Your task to perform on an android device: turn off translation in the chrome app Image 0: 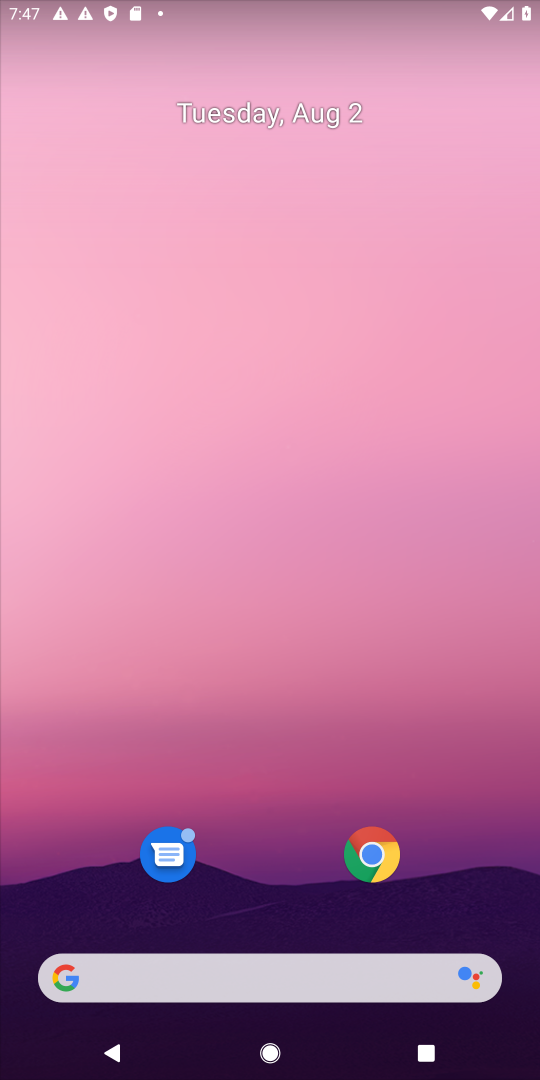
Step 0: drag from (282, 893) to (346, 66)
Your task to perform on an android device: turn off translation in the chrome app Image 1: 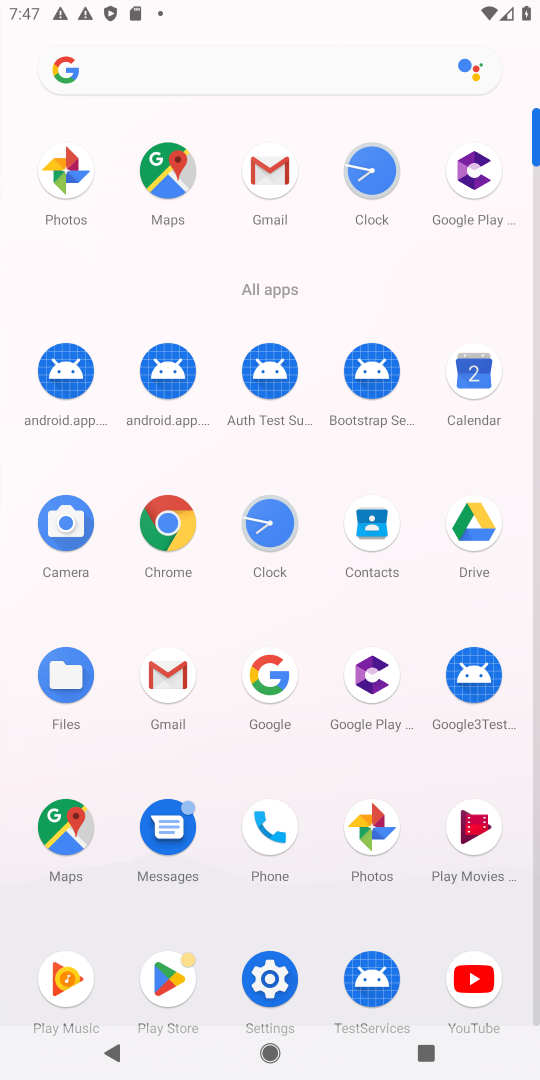
Step 1: click (160, 523)
Your task to perform on an android device: turn off translation in the chrome app Image 2: 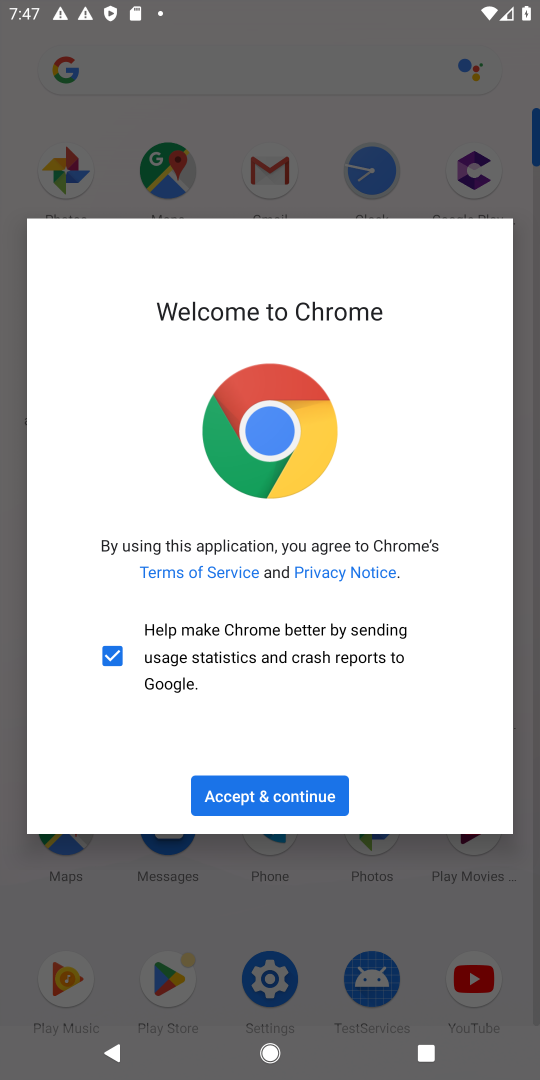
Step 2: click (301, 802)
Your task to perform on an android device: turn off translation in the chrome app Image 3: 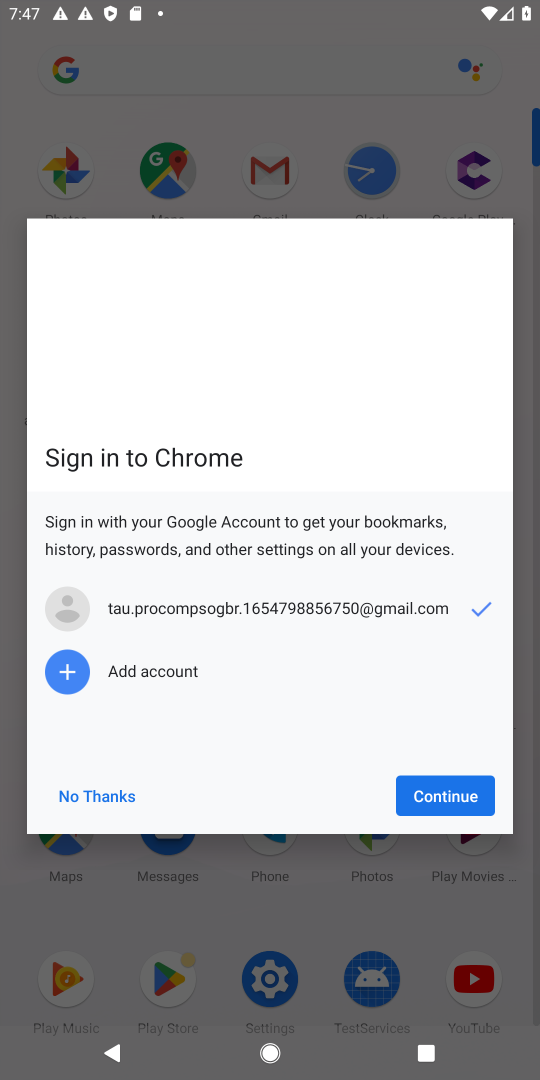
Step 3: click (449, 789)
Your task to perform on an android device: turn off translation in the chrome app Image 4: 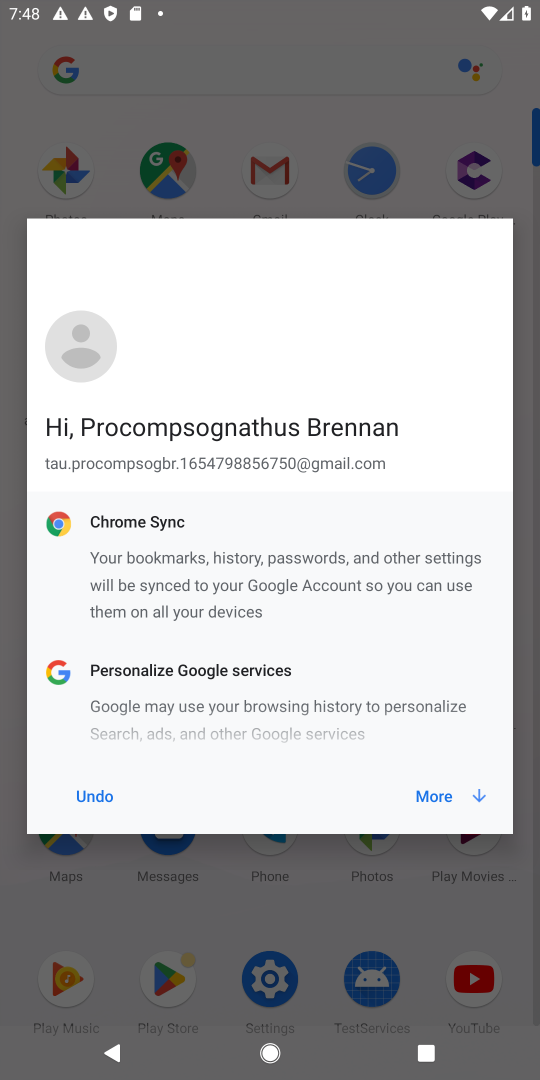
Step 4: click (428, 800)
Your task to perform on an android device: turn off translation in the chrome app Image 5: 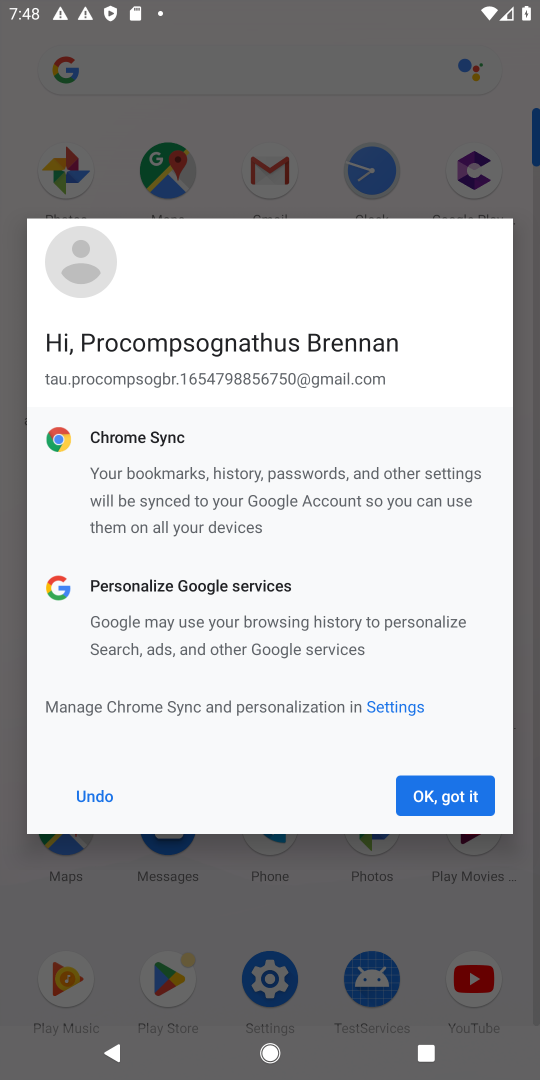
Step 5: click (428, 800)
Your task to perform on an android device: turn off translation in the chrome app Image 6: 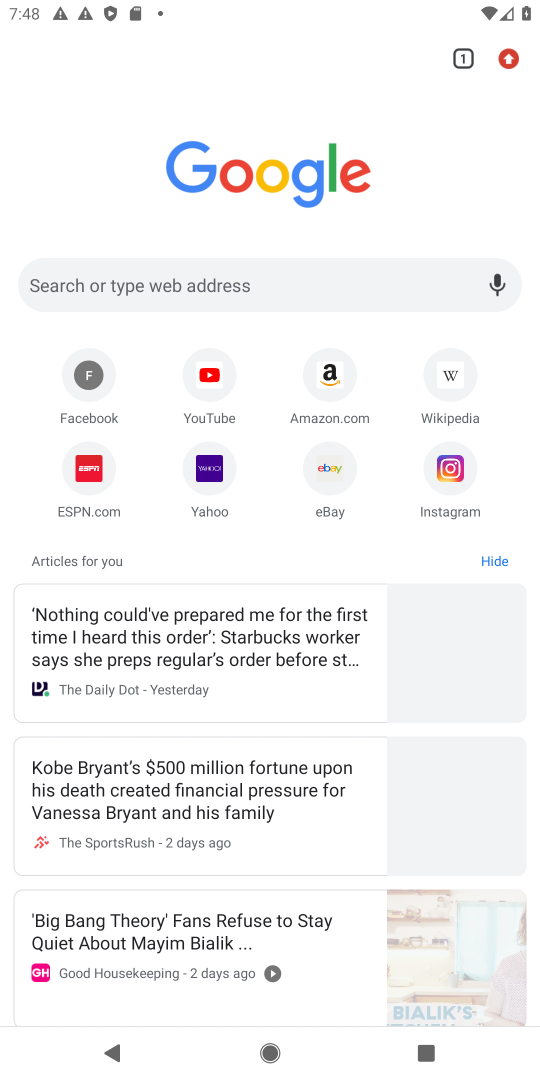
Step 6: click (512, 58)
Your task to perform on an android device: turn off translation in the chrome app Image 7: 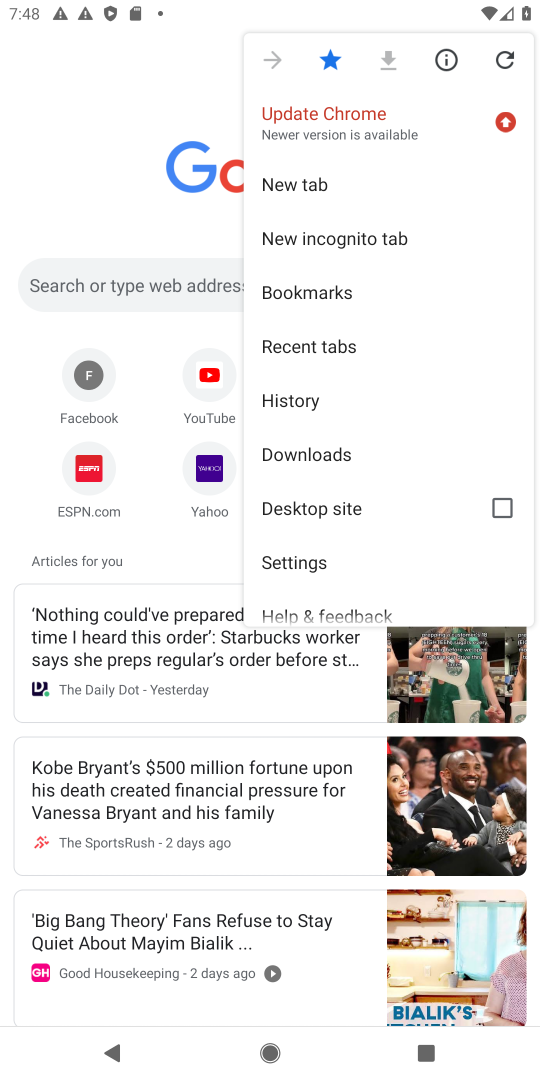
Step 7: click (325, 559)
Your task to perform on an android device: turn off translation in the chrome app Image 8: 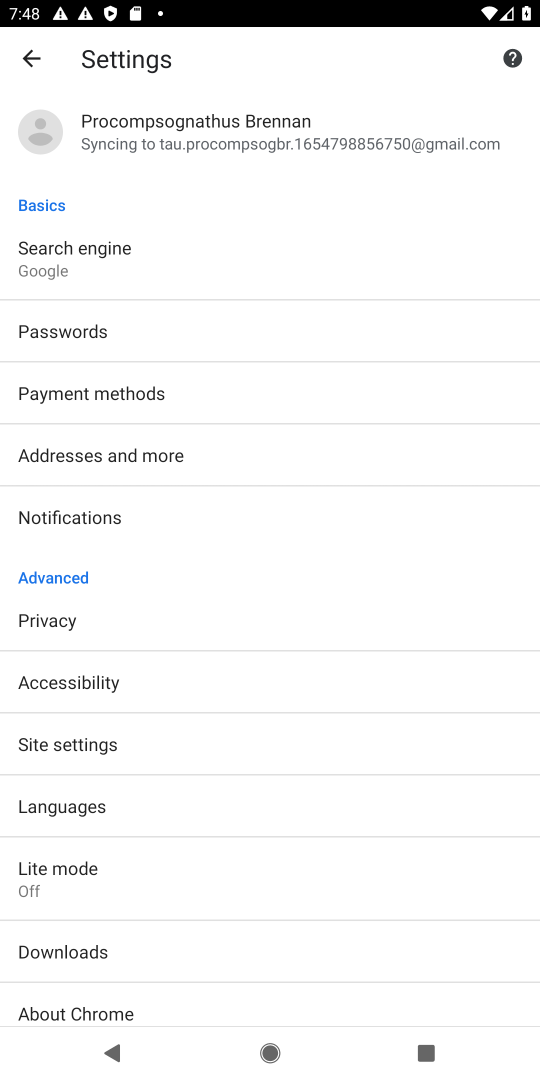
Step 8: click (254, 803)
Your task to perform on an android device: turn off translation in the chrome app Image 9: 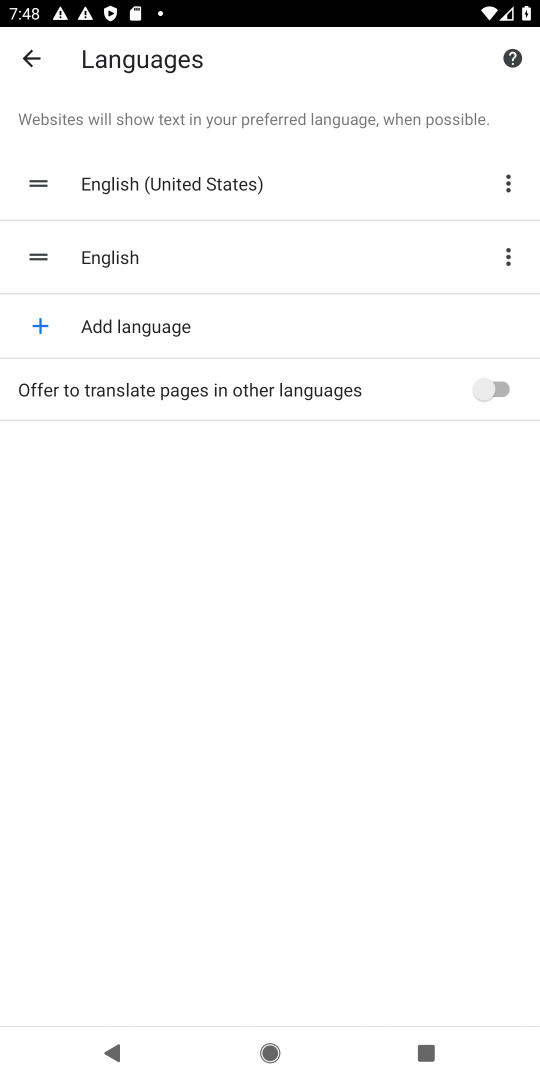
Step 9: task complete